Your task to perform on an android device: Search for Italian restaurants on Maps Image 0: 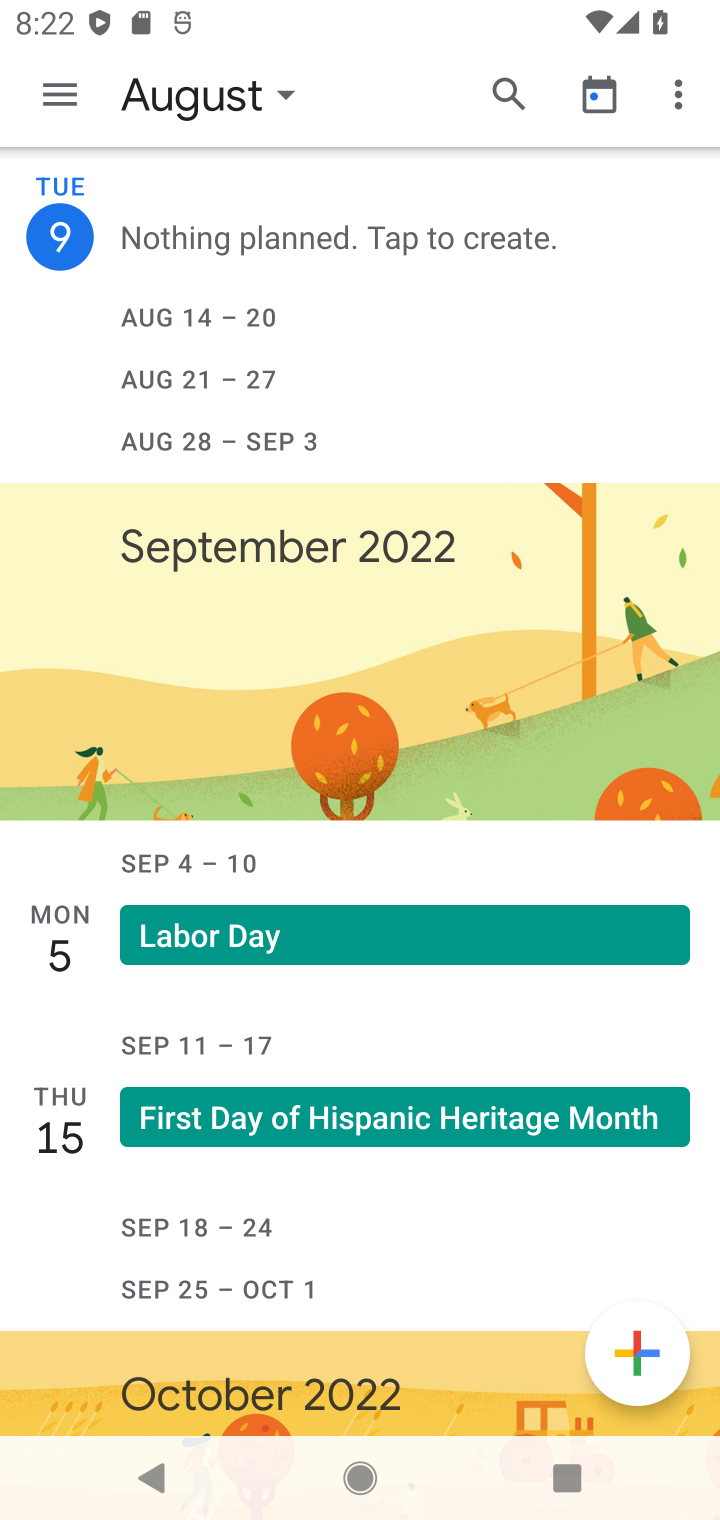
Step 0: press home button
Your task to perform on an android device: Search for Italian restaurants on Maps Image 1: 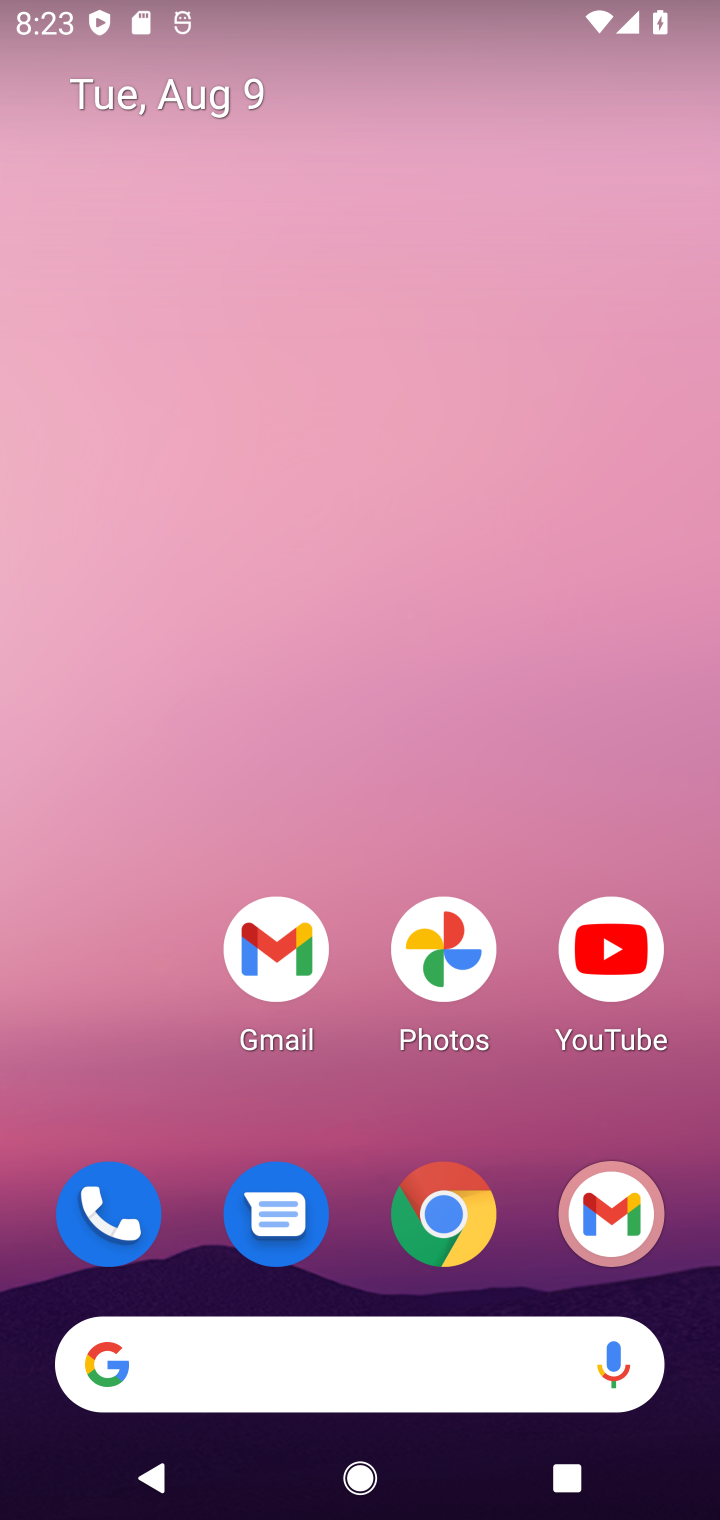
Step 1: task complete